Your task to perform on an android device: Add "logitech g910" to the cart on bestbuy.com, then select checkout. Image 0: 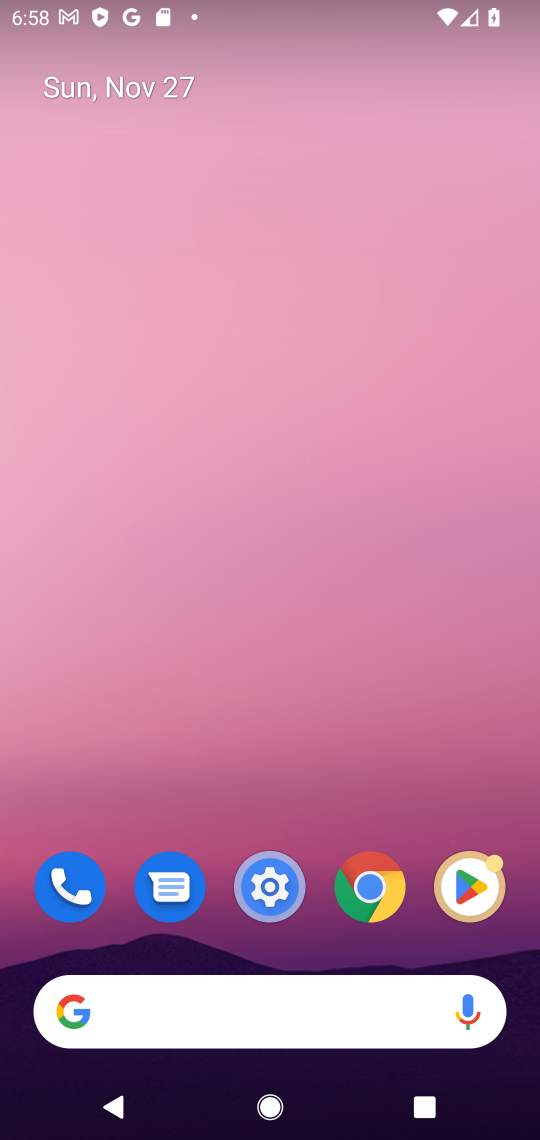
Step 0: click (249, 1020)
Your task to perform on an android device: Add "logitech g910" to the cart on bestbuy.com, then select checkout. Image 1: 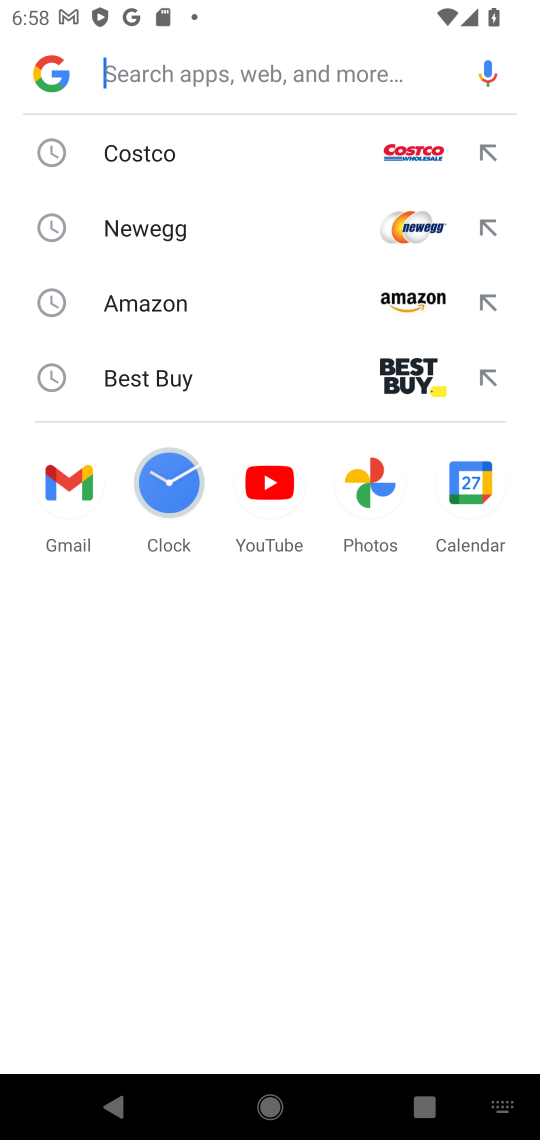
Step 1: type "bestbuy"
Your task to perform on an android device: Add "logitech g910" to the cart on bestbuy.com, then select checkout. Image 2: 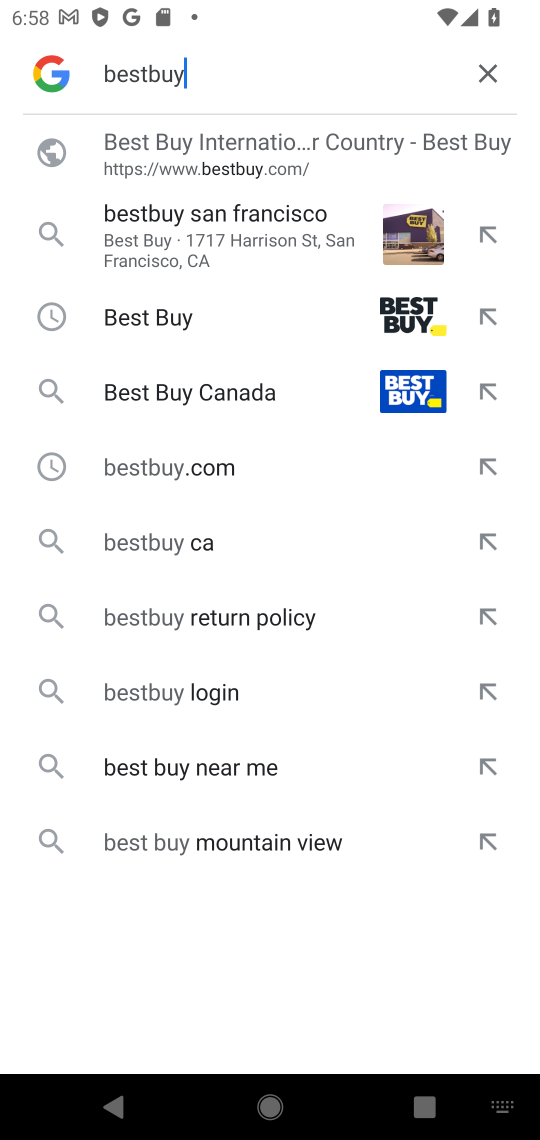
Step 2: click (221, 166)
Your task to perform on an android device: Add "logitech g910" to the cart on bestbuy.com, then select checkout. Image 3: 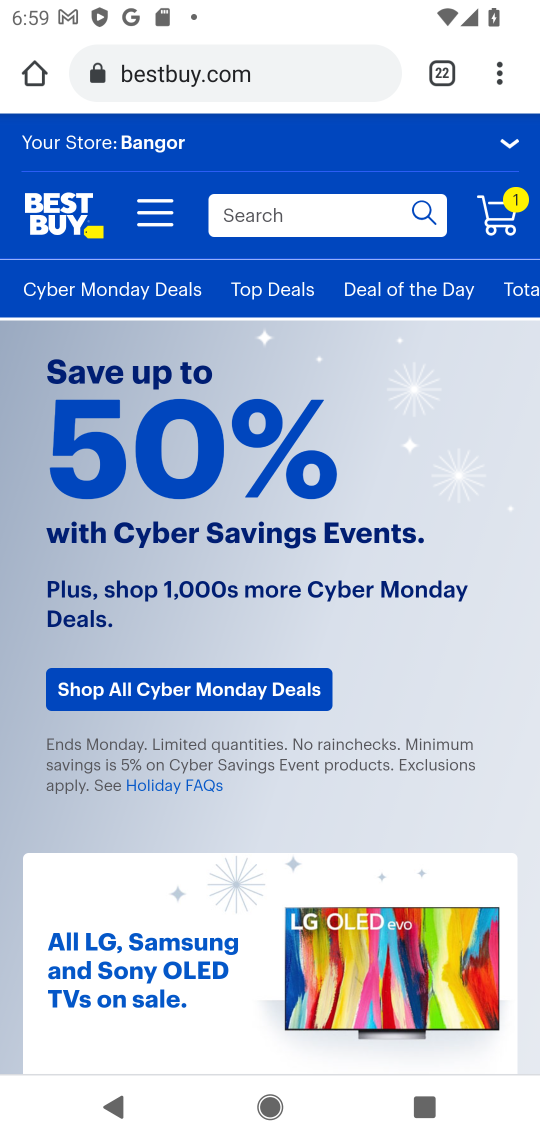
Step 3: drag from (260, 752) to (242, 219)
Your task to perform on an android device: Add "logitech g910" to the cart on bestbuy.com, then select checkout. Image 4: 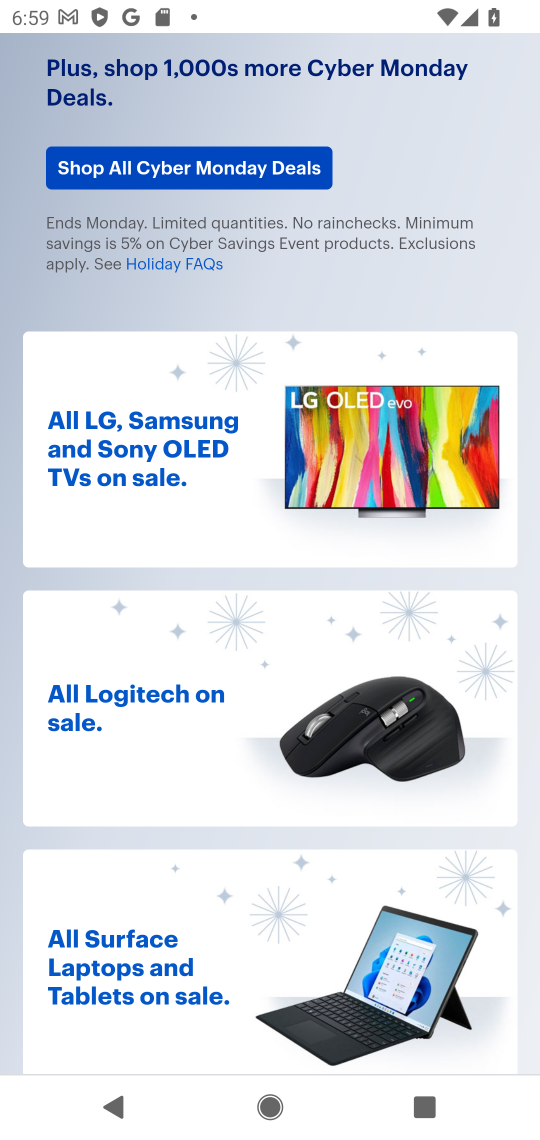
Step 4: drag from (309, 386) to (121, 1100)
Your task to perform on an android device: Add "logitech g910" to the cart on bestbuy.com, then select checkout. Image 5: 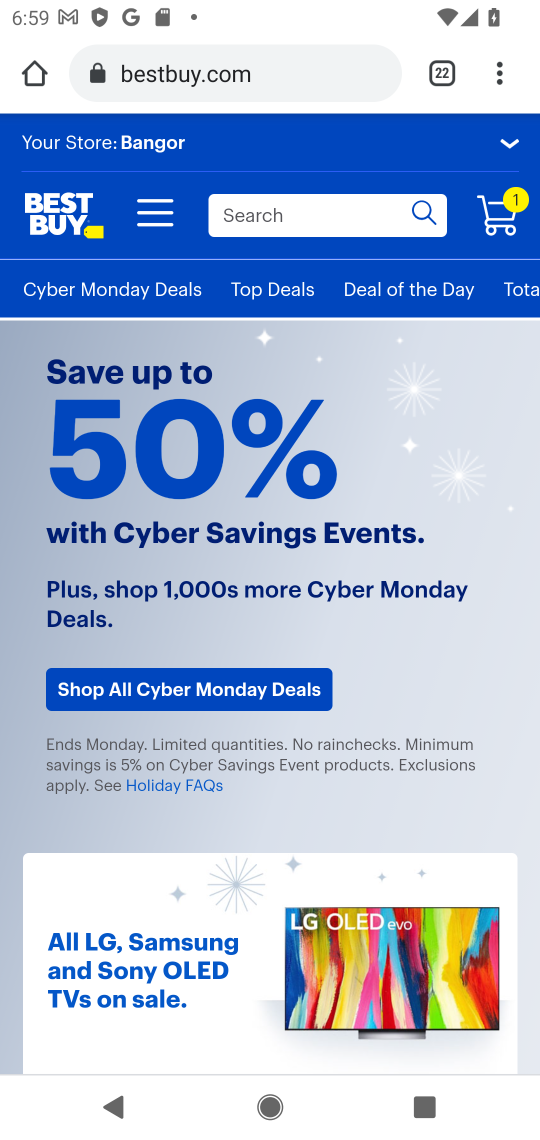
Step 5: click (296, 206)
Your task to perform on an android device: Add "logitech g910" to the cart on bestbuy.com, then select checkout. Image 6: 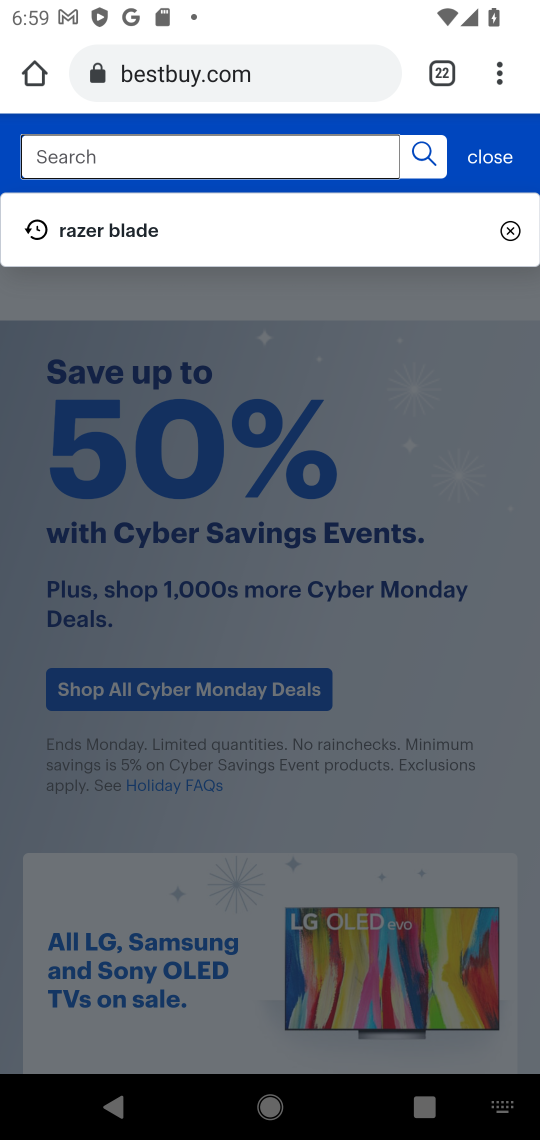
Step 6: type "logitech g910"
Your task to perform on an android device: Add "logitech g910" to the cart on bestbuy.com, then select checkout. Image 7: 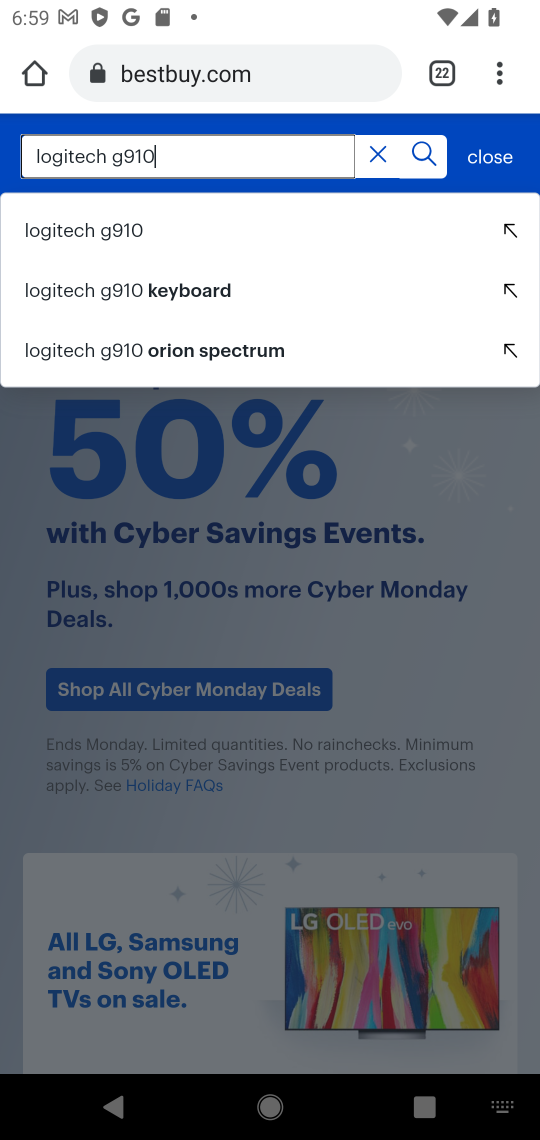
Step 7: click (70, 248)
Your task to perform on an android device: Add "logitech g910" to the cart on bestbuy.com, then select checkout. Image 8: 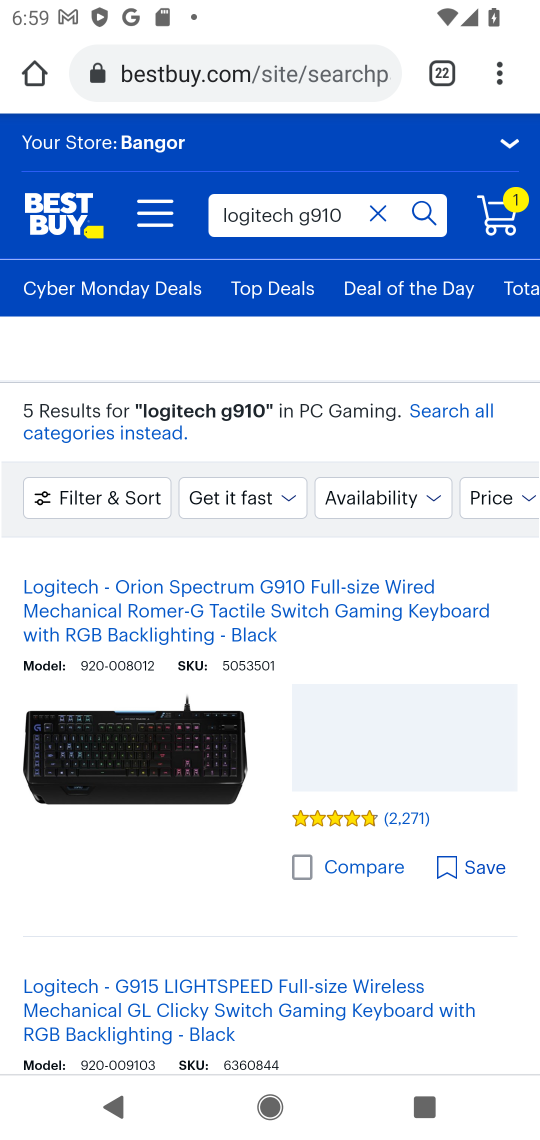
Step 8: drag from (242, 896) to (275, 515)
Your task to perform on an android device: Add "logitech g910" to the cart on bestbuy.com, then select checkout. Image 9: 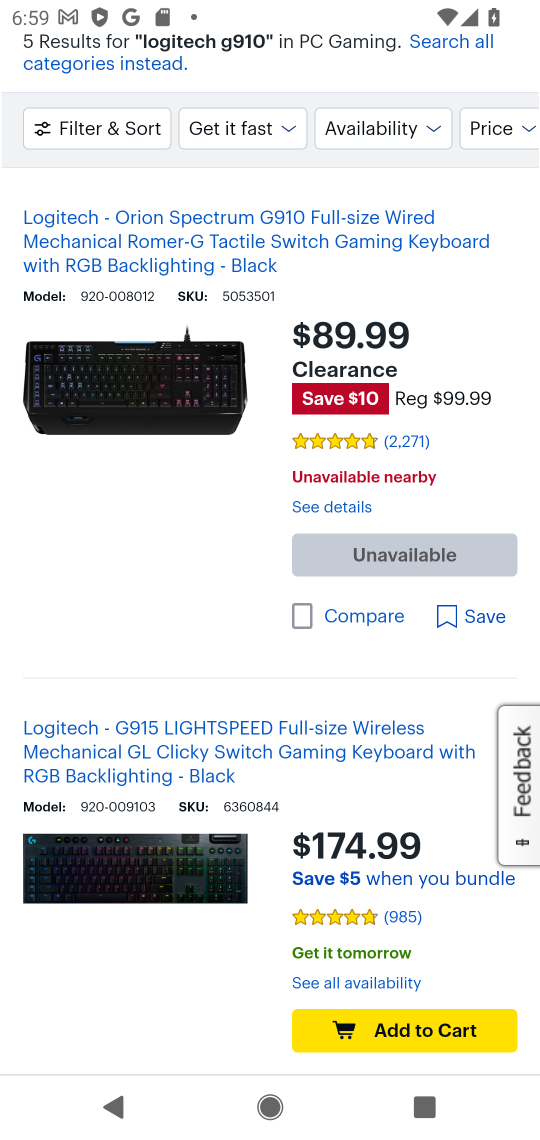
Step 9: click (483, 1042)
Your task to perform on an android device: Add "logitech g910" to the cart on bestbuy.com, then select checkout. Image 10: 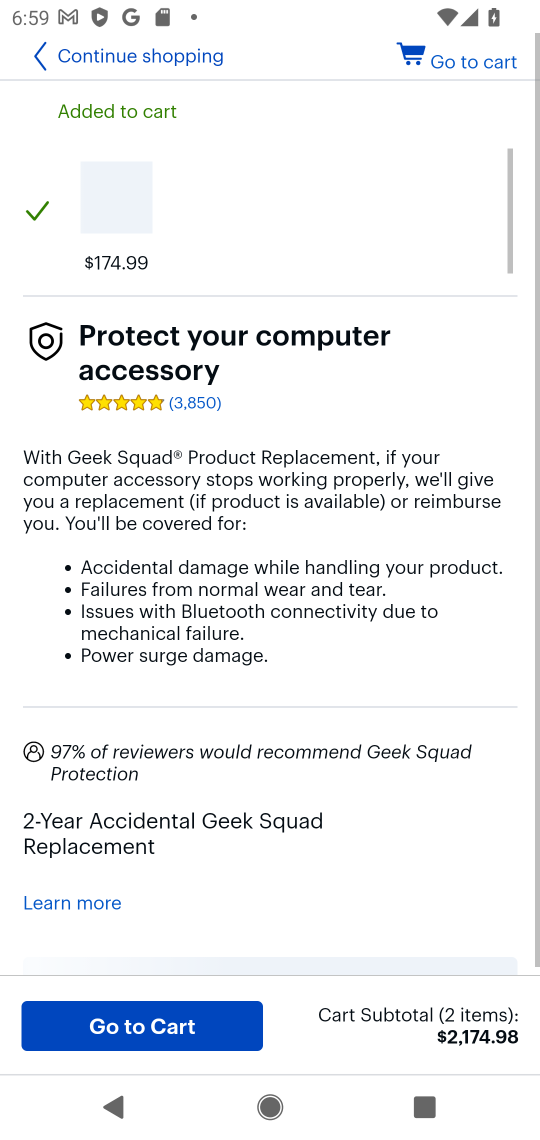
Step 10: task complete